Your task to perform on an android device: Go to notification settings Image 0: 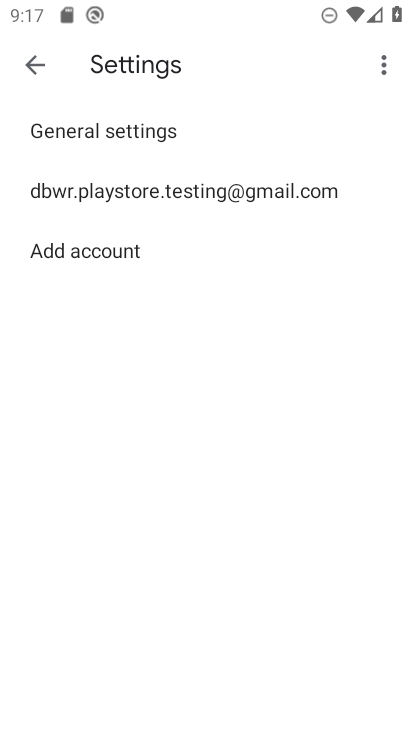
Step 0: press home button
Your task to perform on an android device: Go to notification settings Image 1: 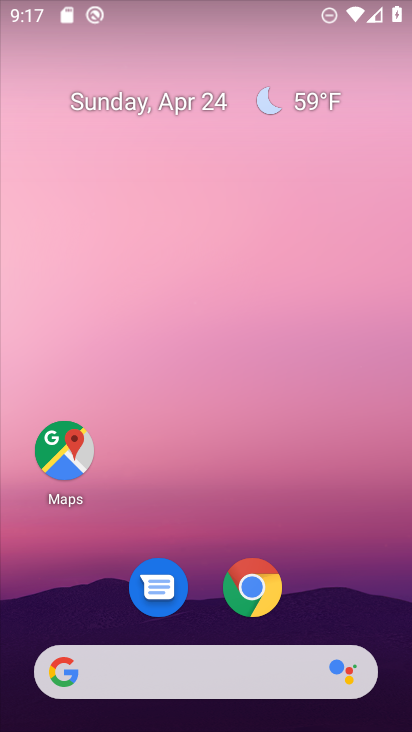
Step 1: drag from (180, 495) to (408, 94)
Your task to perform on an android device: Go to notification settings Image 2: 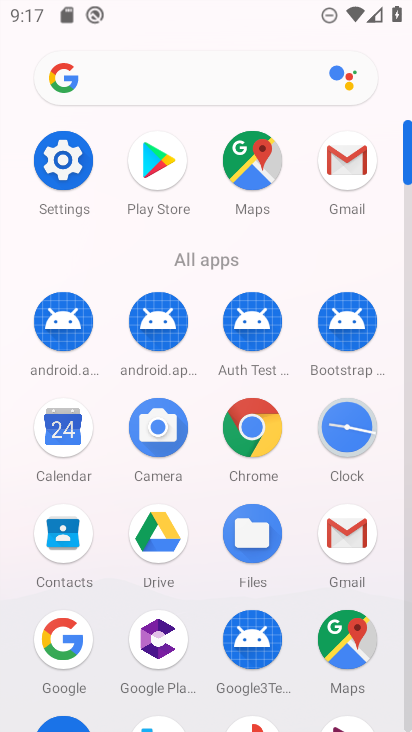
Step 2: click (60, 159)
Your task to perform on an android device: Go to notification settings Image 3: 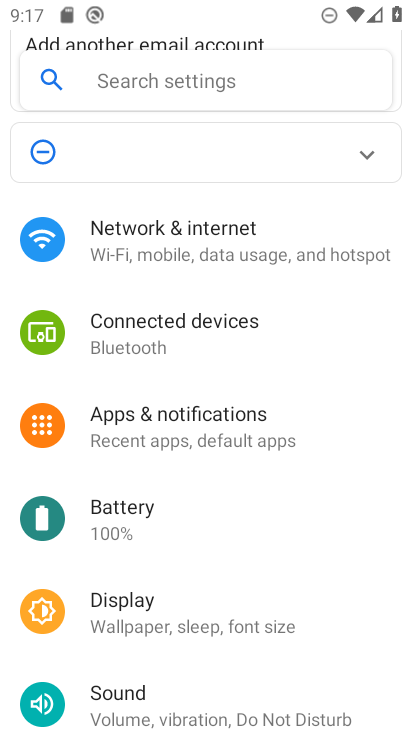
Step 3: click (174, 409)
Your task to perform on an android device: Go to notification settings Image 4: 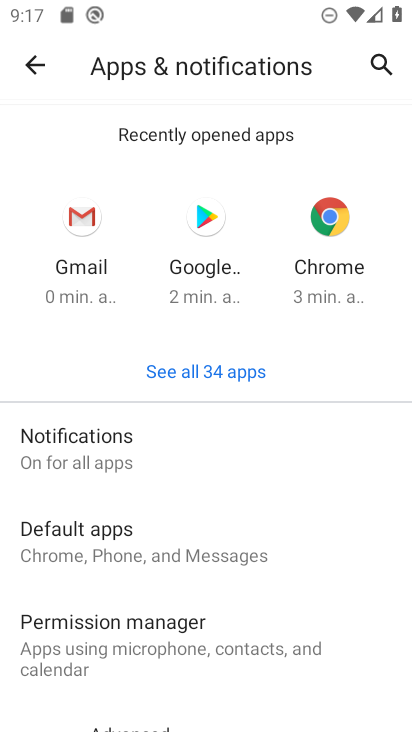
Step 4: click (110, 447)
Your task to perform on an android device: Go to notification settings Image 5: 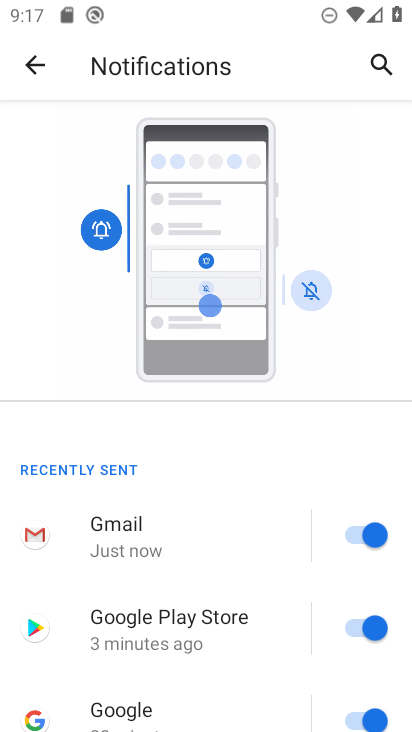
Step 5: task complete